Your task to perform on an android device: Turn on the flashlight Image 0: 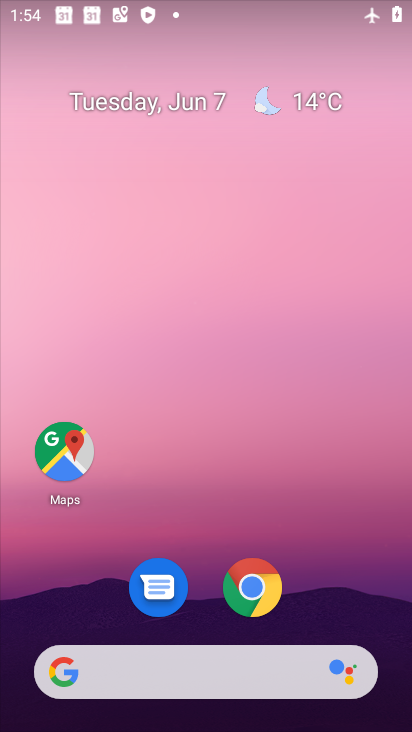
Step 0: drag from (292, 10) to (232, 457)
Your task to perform on an android device: Turn on the flashlight Image 1: 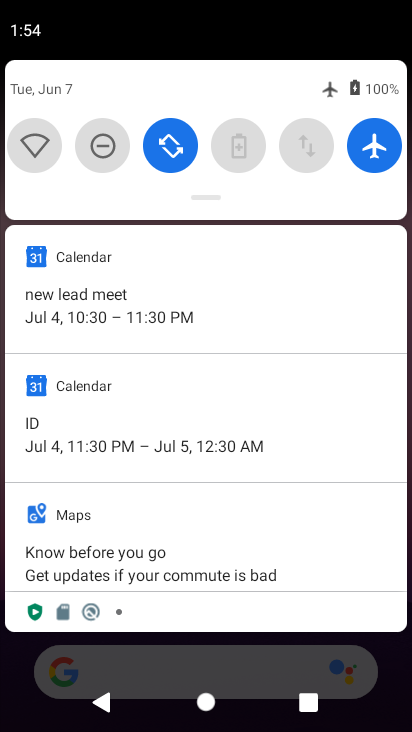
Step 1: task complete